Your task to perform on an android device: Go to display settings Image 0: 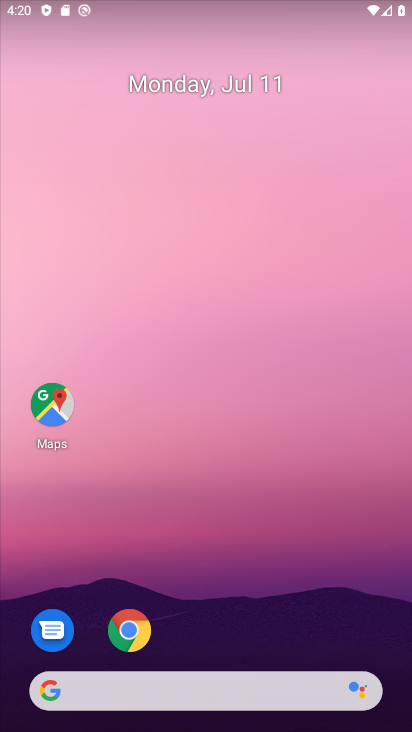
Step 0: drag from (220, 593) to (272, 67)
Your task to perform on an android device: Go to display settings Image 1: 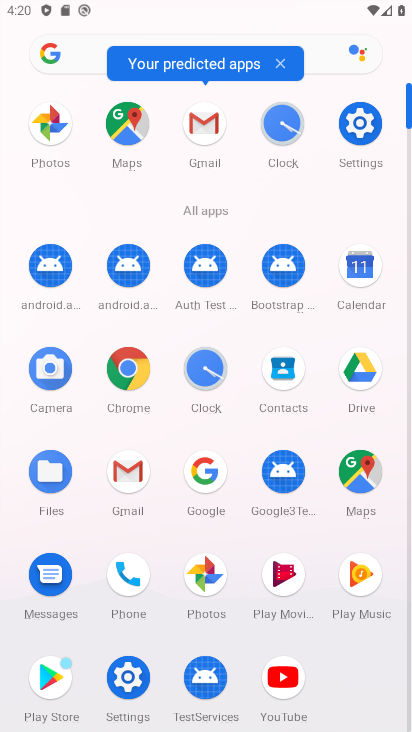
Step 1: click (126, 690)
Your task to perform on an android device: Go to display settings Image 2: 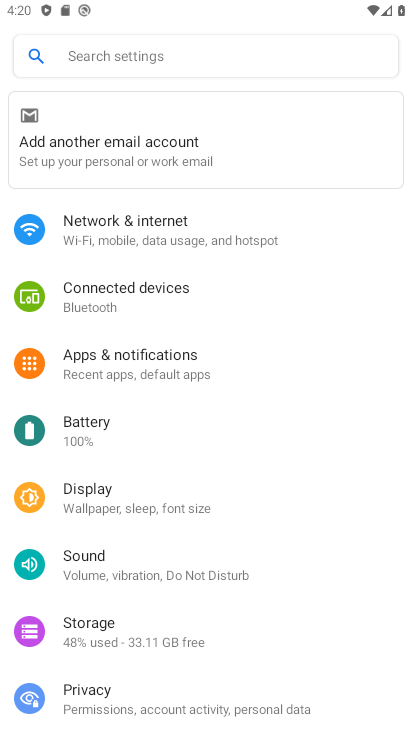
Step 2: click (114, 495)
Your task to perform on an android device: Go to display settings Image 3: 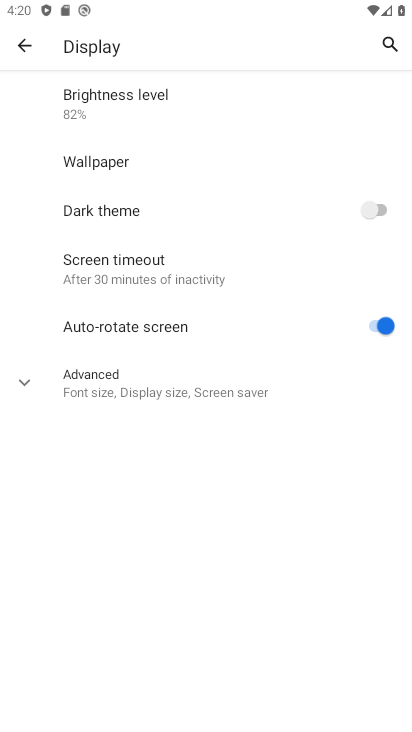
Step 3: task complete